Your task to perform on an android device: Clear the cart on amazon.com. Search for acer nitro on amazon.com, select the first entry, and add it to the cart. Image 0: 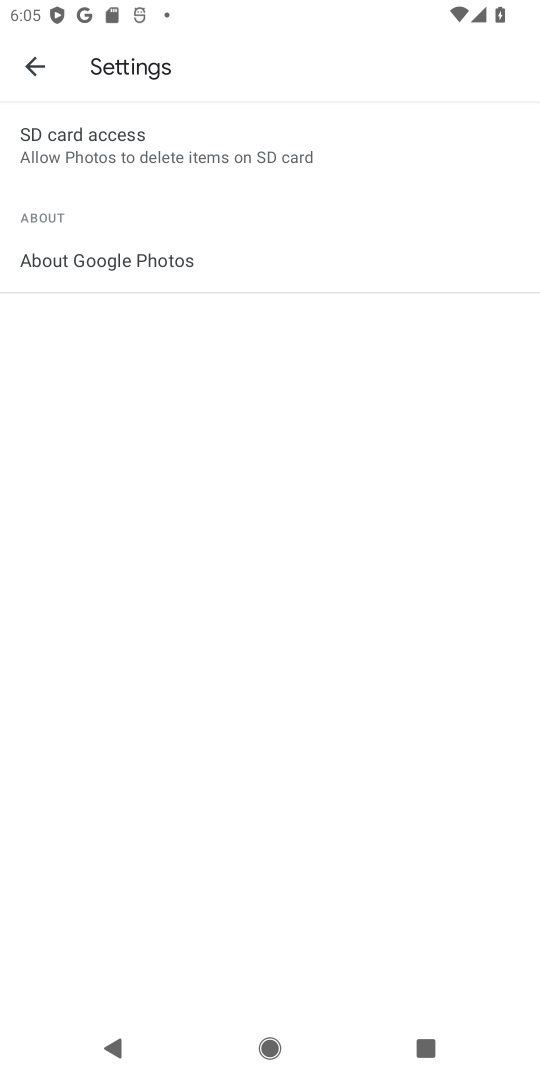
Step 0: press home button
Your task to perform on an android device: Clear the cart on amazon.com. Search for acer nitro on amazon.com, select the first entry, and add it to the cart. Image 1: 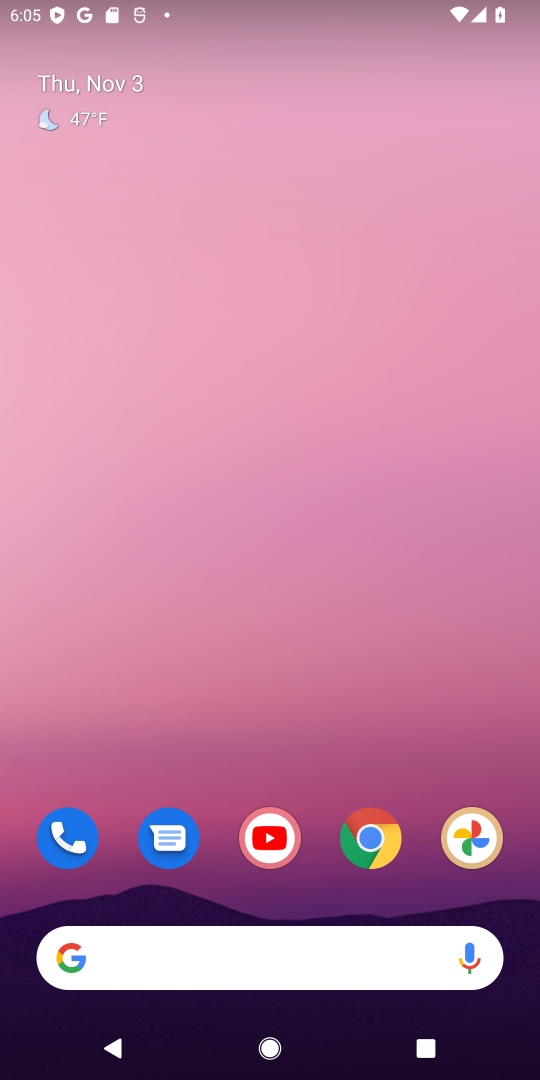
Step 1: click (219, 946)
Your task to perform on an android device: Clear the cart on amazon.com. Search for acer nitro on amazon.com, select the first entry, and add it to the cart. Image 2: 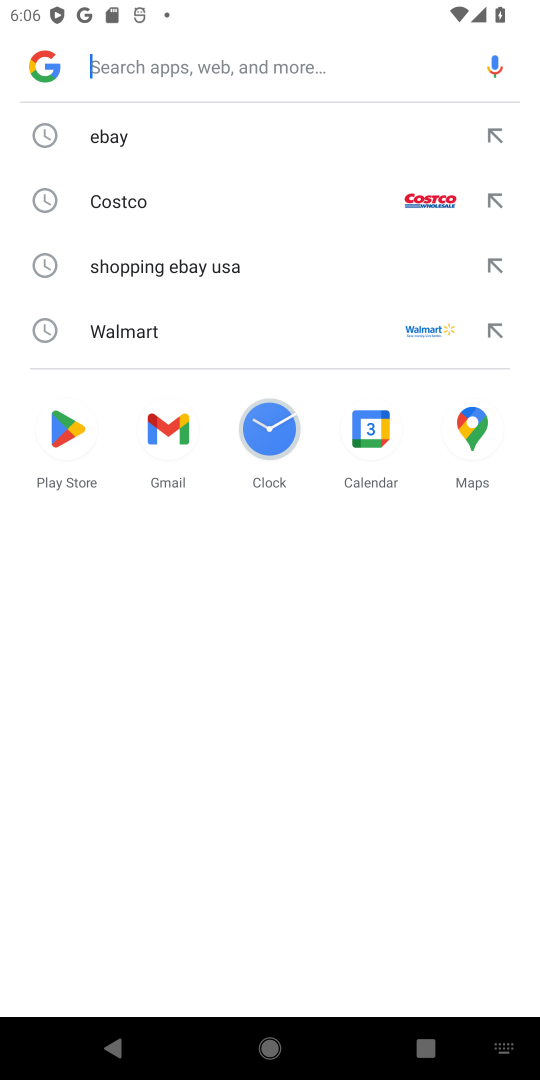
Step 2: type "amazon.com"
Your task to perform on an android device: Clear the cart on amazon.com. Search for acer nitro on amazon.com, select the first entry, and add it to the cart. Image 3: 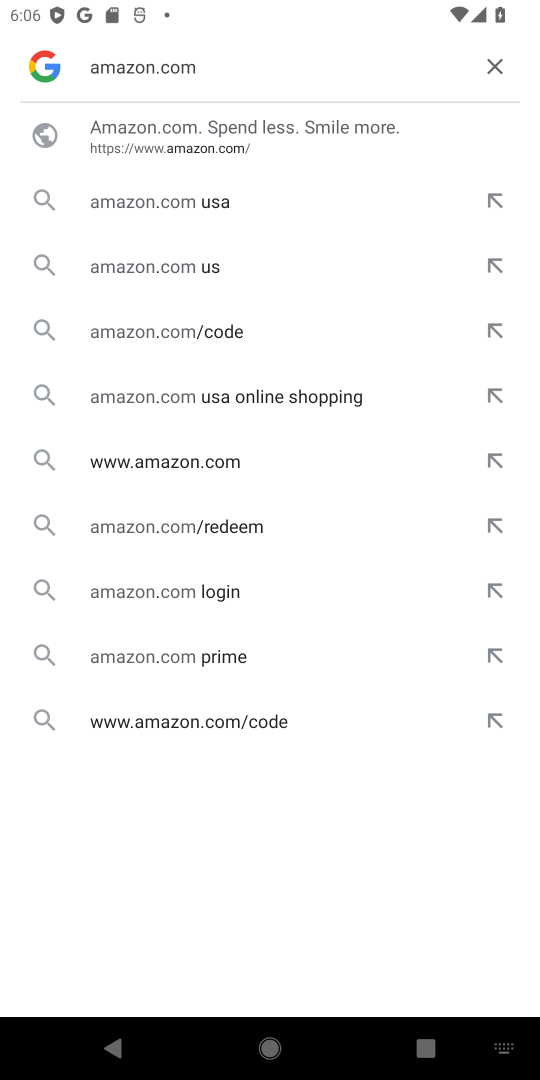
Step 3: click (170, 138)
Your task to perform on an android device: Clear the cart on amazon.com. Search for acer nitro on amazon.com, select the first entry, and add it to the cart. Image 4: 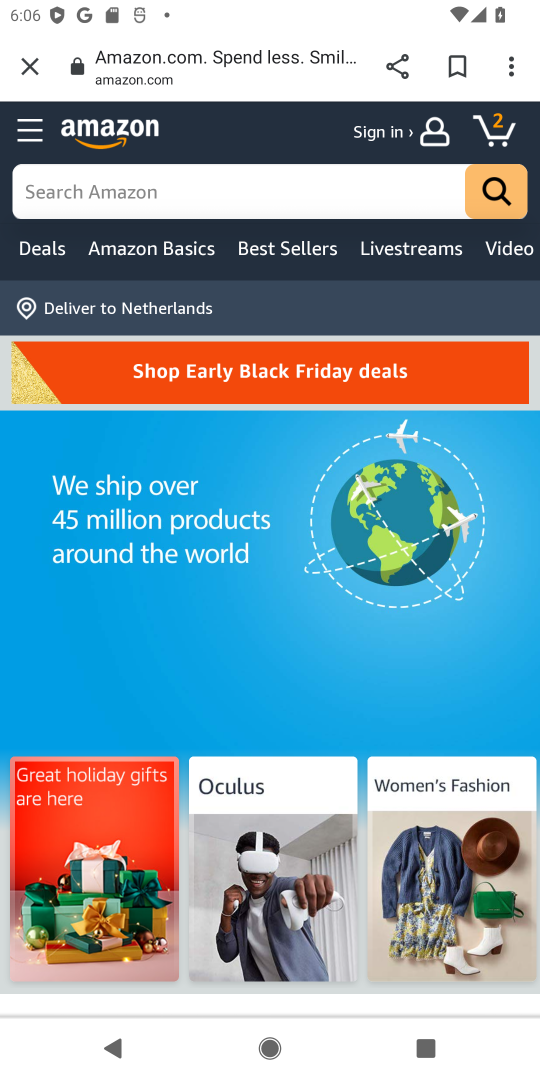
Step 4: click (209, 195)
Your task to perform on an android device: Clear the cart on amazon.com. Search for acer nitro on amazon.com, select the first entry, and add it to the cart. Image 5: 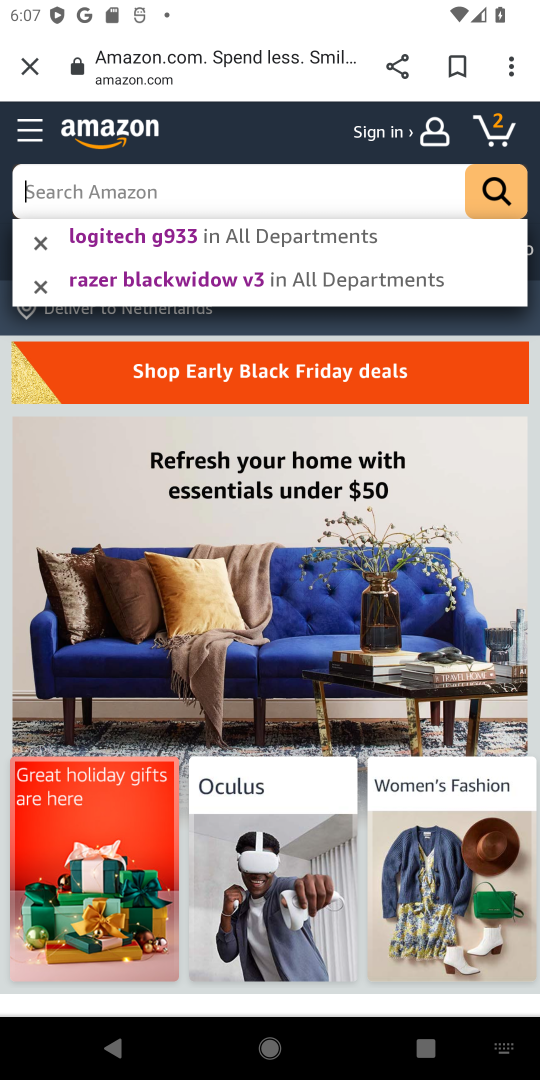
Step 5: type " acer nitro"
Your task to perform on an android device: Clear the cart on amazon.com. Search for acer nitro on amazon.com, select the first entry, and add it to the cart. Image 6: 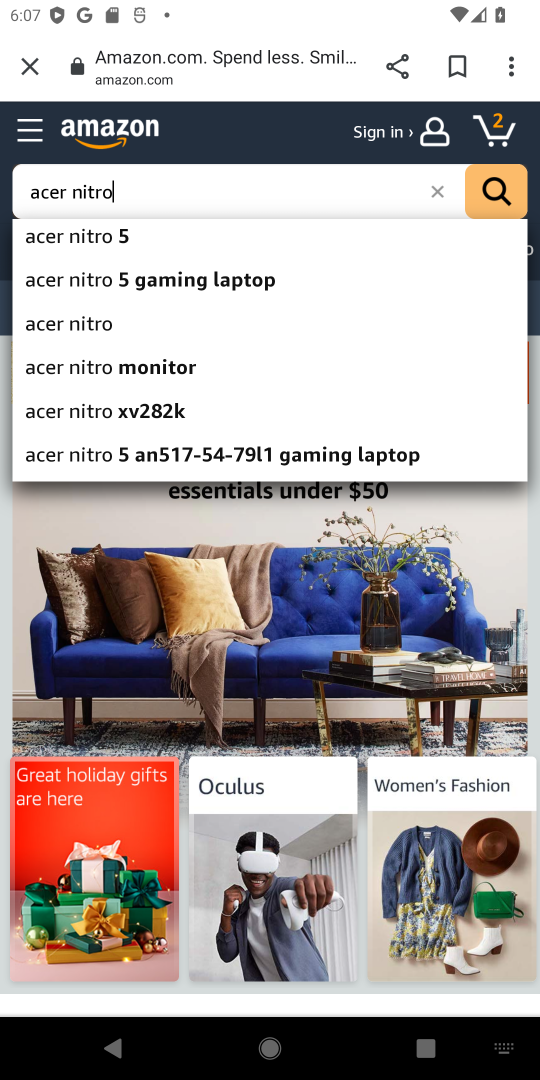
Step 6: click (84, 329)
Your task to perform on an android device: Clear the cart on amazon.com. Search for acer nitro on amazon.com, select the first entry, and add it to the cart. Image 7: 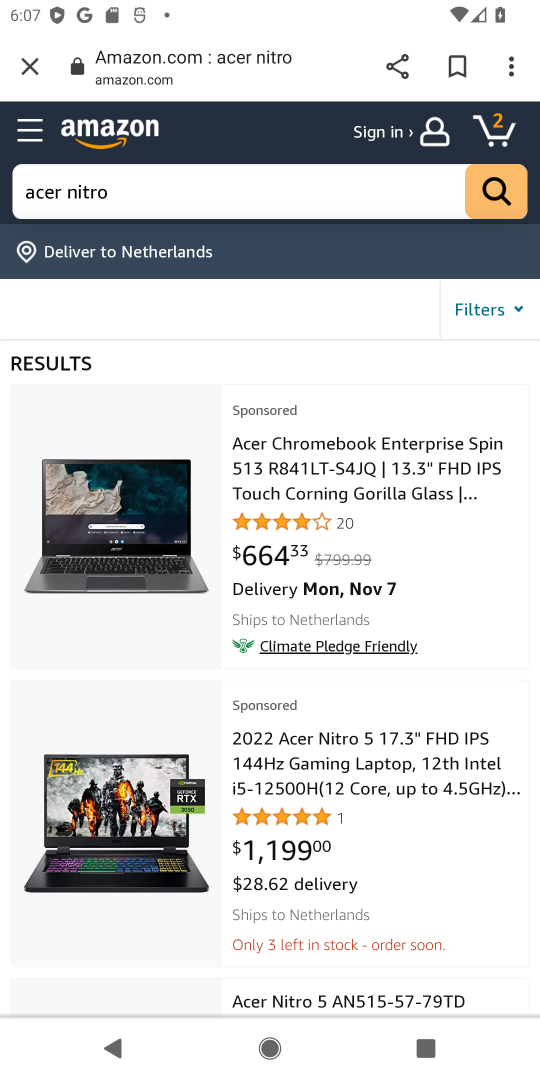
Step 7: click (346, 507)
Your task to perform on an android device: Clear the cart on amazon.com. Search for acer nitro on amazon.com, select the first entry, and add it to the cart. Image 8: 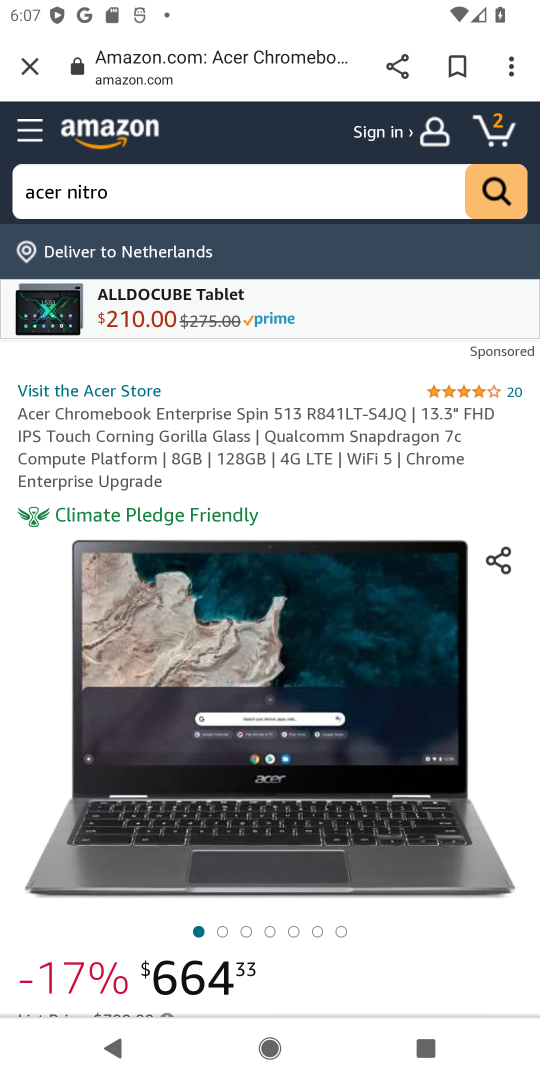
Step 8: drag from (370, 839) to (376, 363)
Your task to perform on an android device: Clear the cart on amazon.com. Search for acer nitro on amazon.com, select the first entry, and add it to the cart. Image 9: 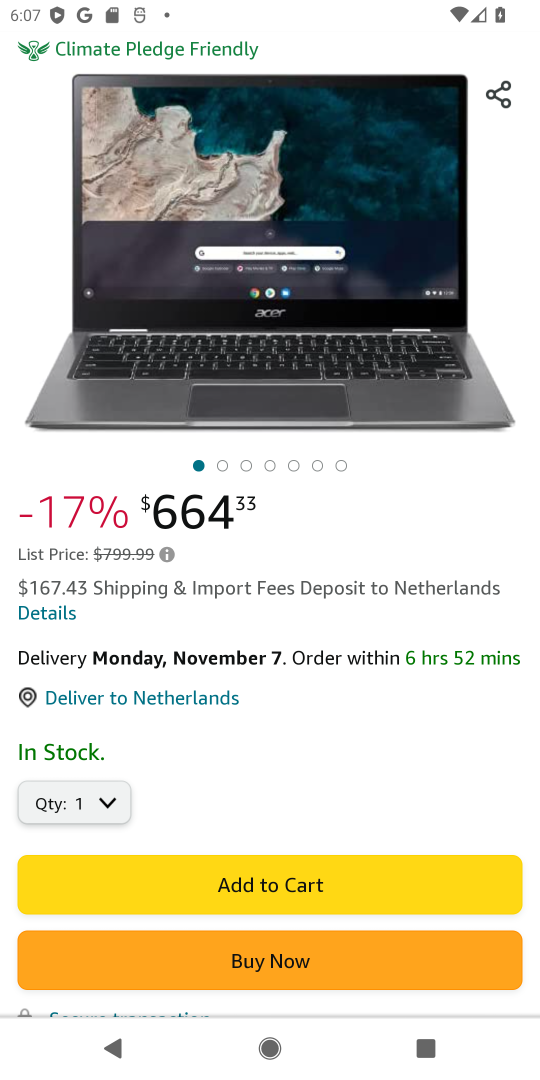
Step 9: click (263, 867)
Your task to perform on an android device: Clear the cart on amazon.com. Search for acer nitro on amazon.com, select the first entry, and add it to the cart. Image 10: 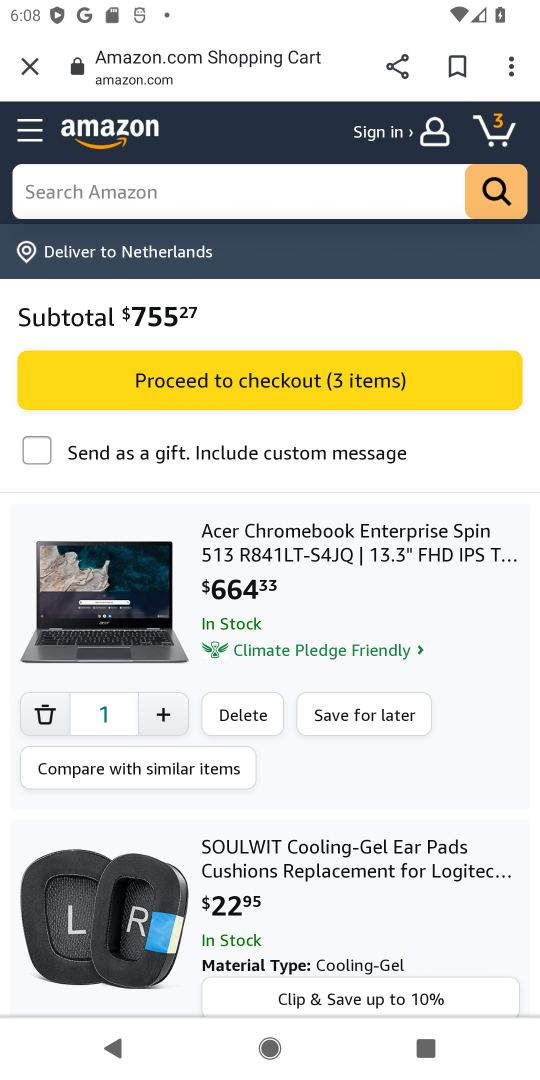
Step 10: click (294, 375)
Your task to perform on an android device: Clear the cart on amazon.com. Search for acer nitro on amazon.com, select the first entry, and add it to the cart. Image 11: 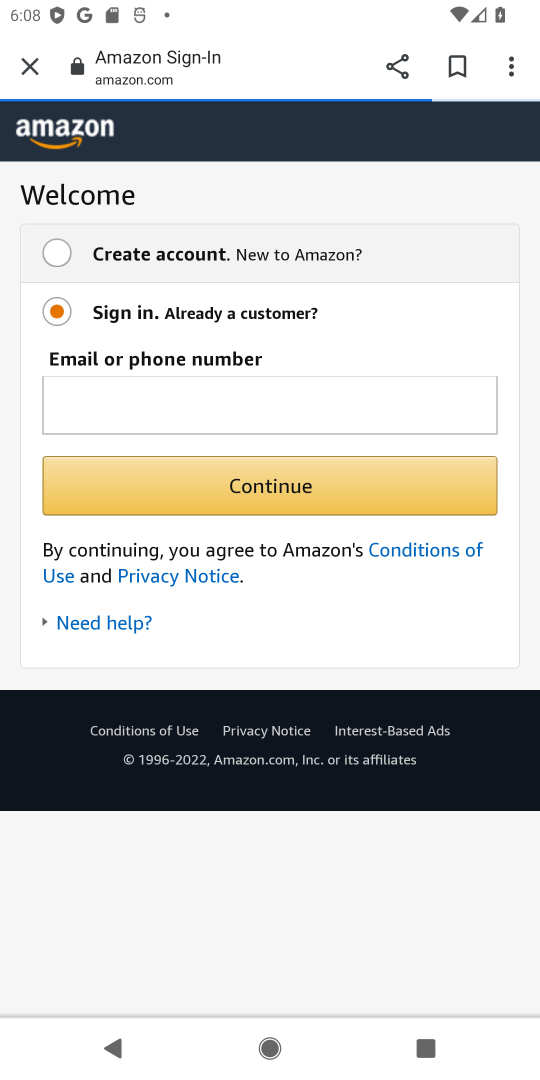
Step 11: task complete